Your task to perform on an android device: find snoozed emails in the gmail app Image 0: 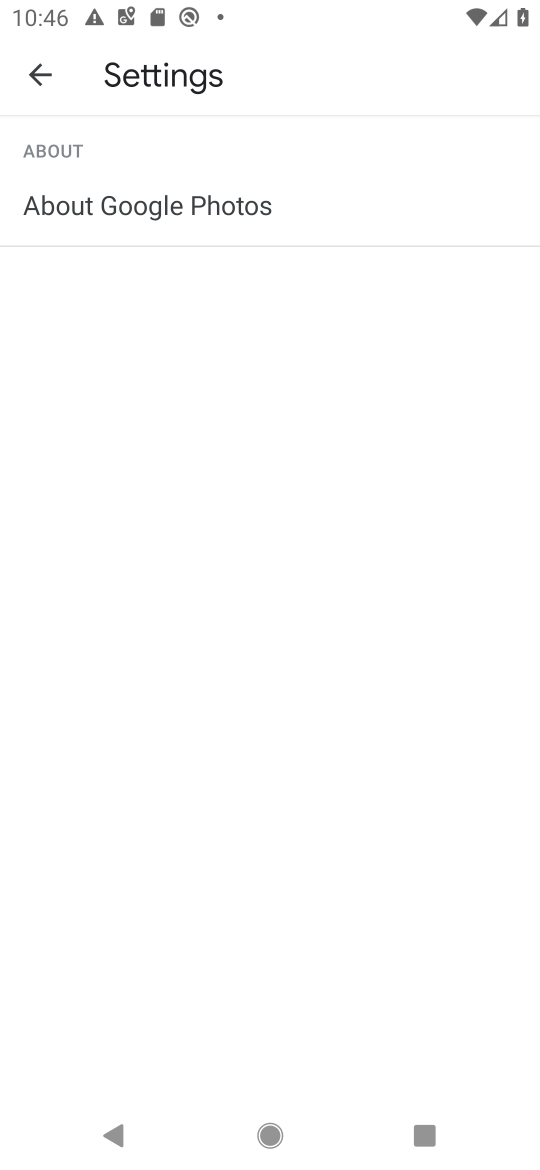
Step 0: click (33, 76)
Your task to perform on an android device: find snoozed emails in the gmail app Image 1: 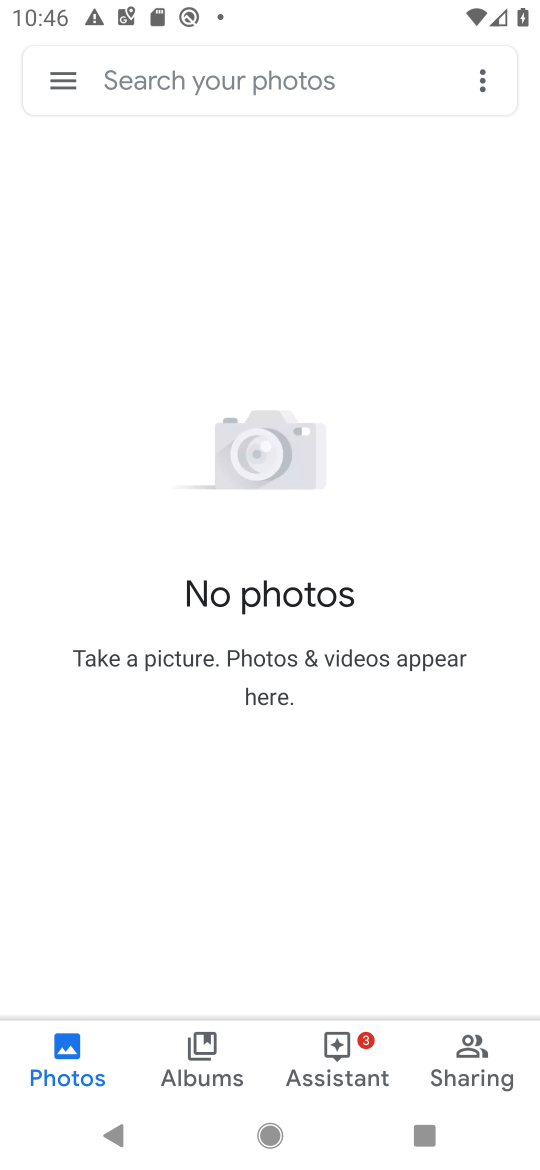
Step 1: press home button
Your task to perform on an android device: find snoozed emails in the gmail app Image 2: 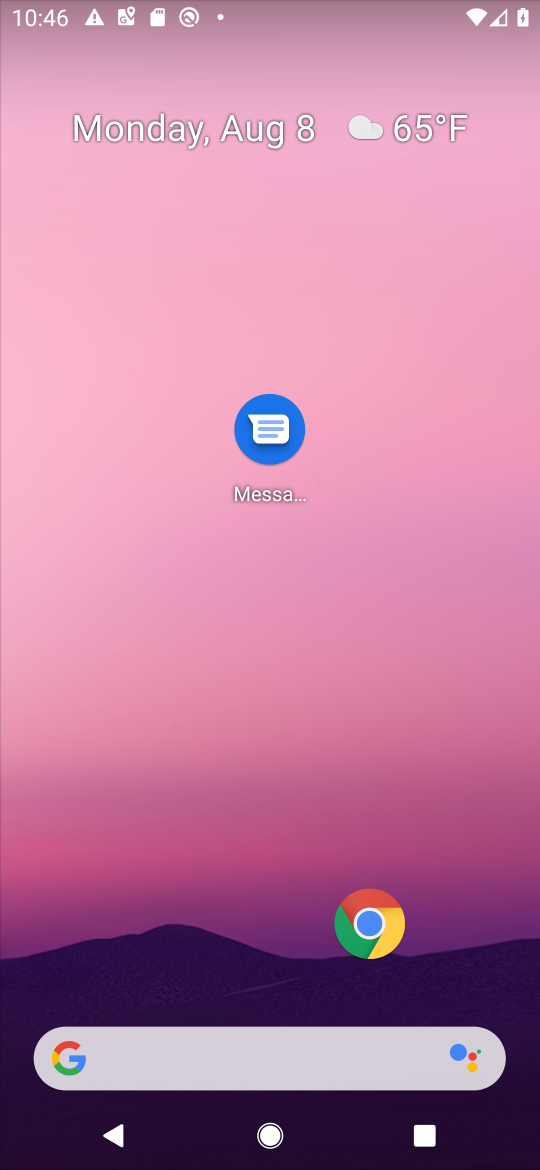
Step 2: drag from (121, 978) to (241, 431)
Your task to perform on an android device: find snoozed emails in the gmail app Image 3: 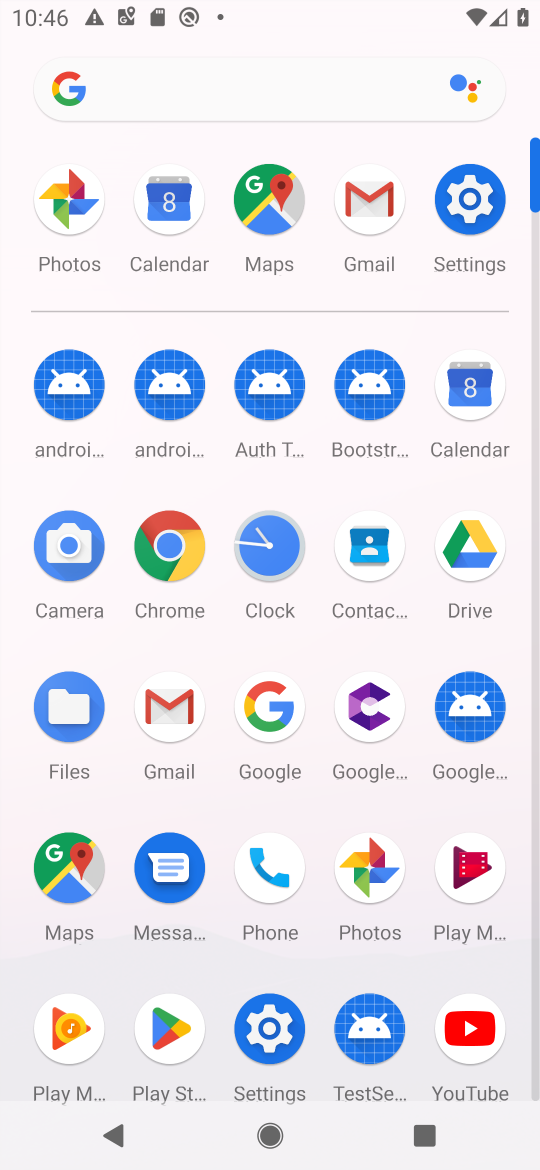
Step 3: click (180, 708)
Your task to perform on an android device: find snoozed emails in the gmail app Image 4: 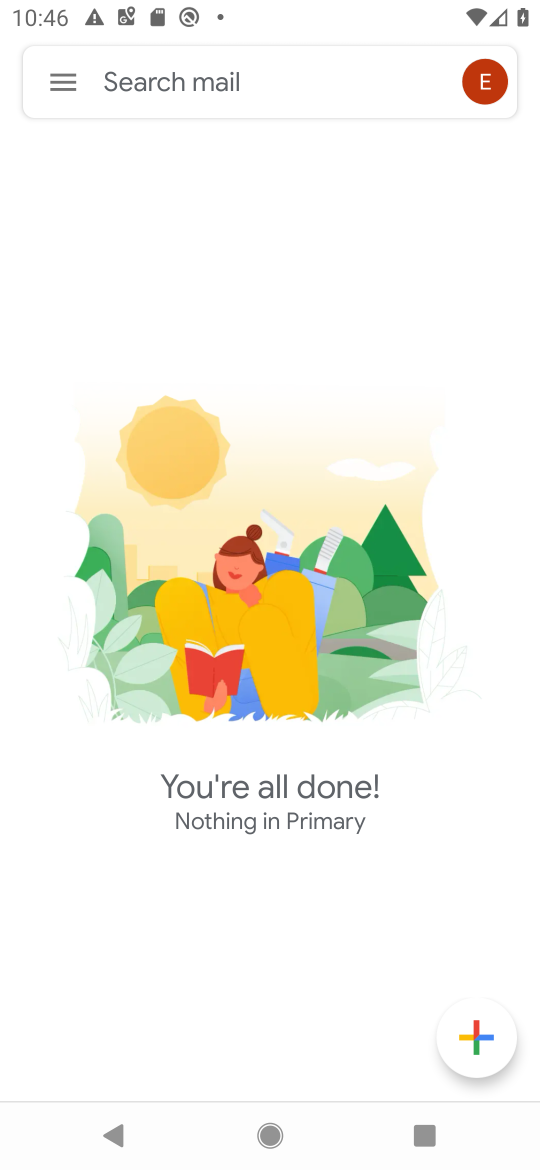
Step 4: click (71, 87)
Your task to perform on an android device: find snoozed emails in the gmail app Image 5: 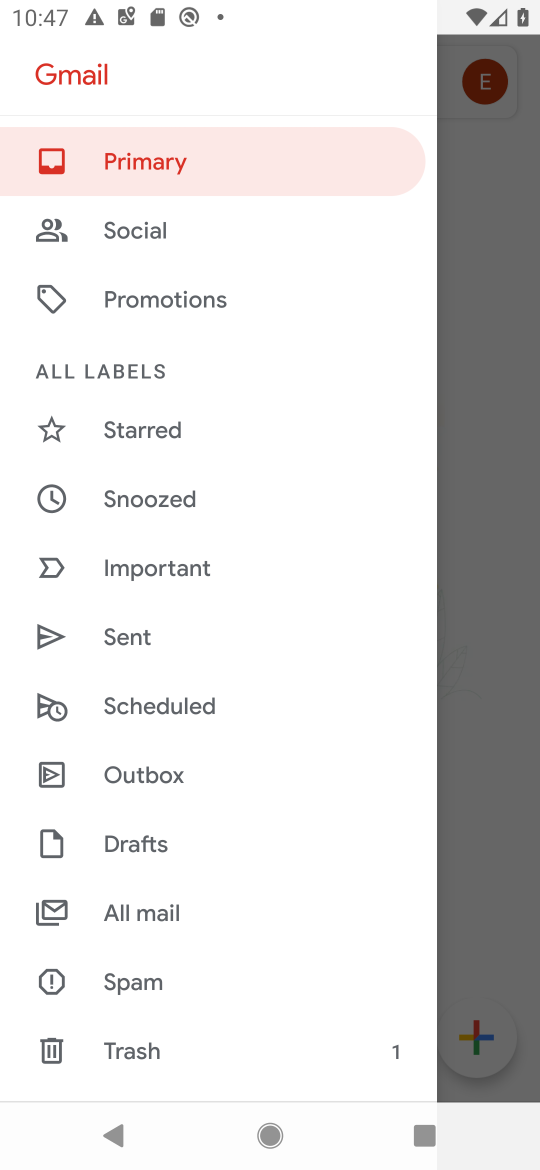
Step 5: click (144, 512)
Your task to perform on an android device: find snoozed emails in the gmail app Image 6: 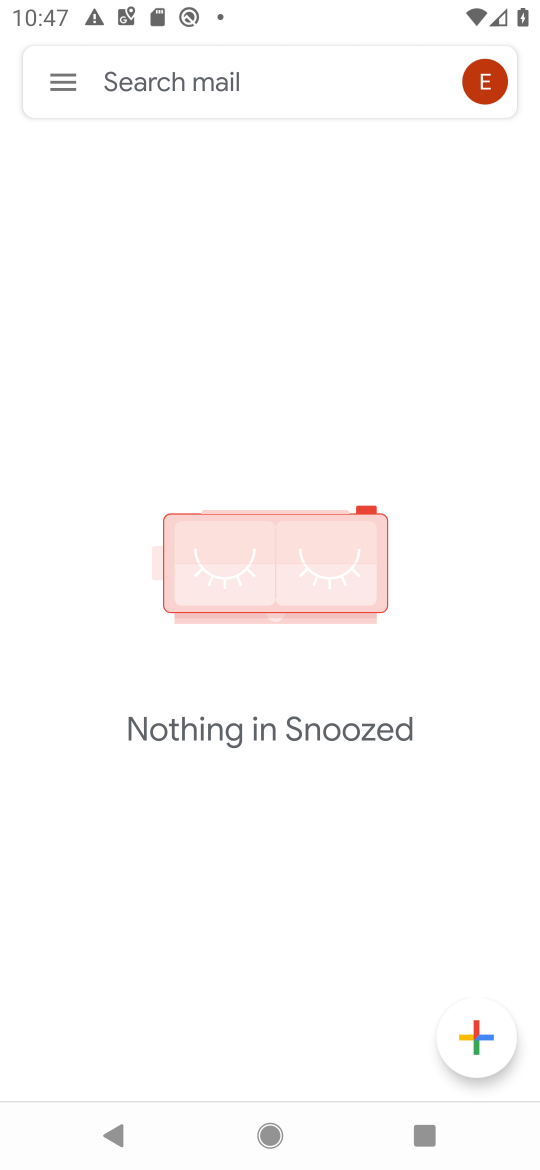
Step 6: task complete